Your task to perform on an android device: move a message to another label in the gmail app Image 0: 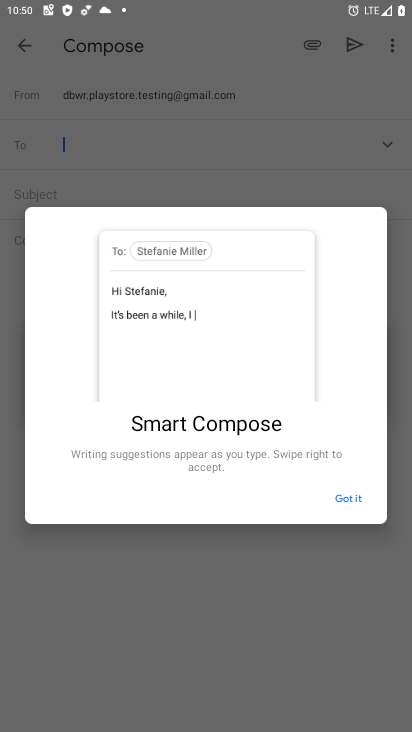
Step 0: press home button
Your task to perform on an android device: move a message to another label in the gmail app Image 1: 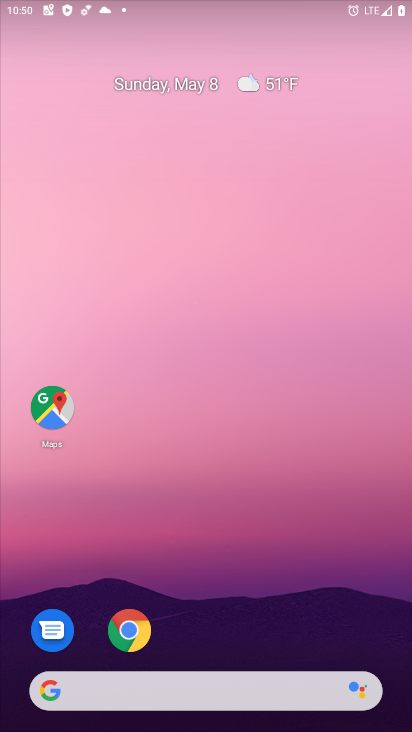
Step 1: drag from (364, 619) to (260, 54)
Your task to perform on an android device: move a message to another label in the gmail app Image 2: 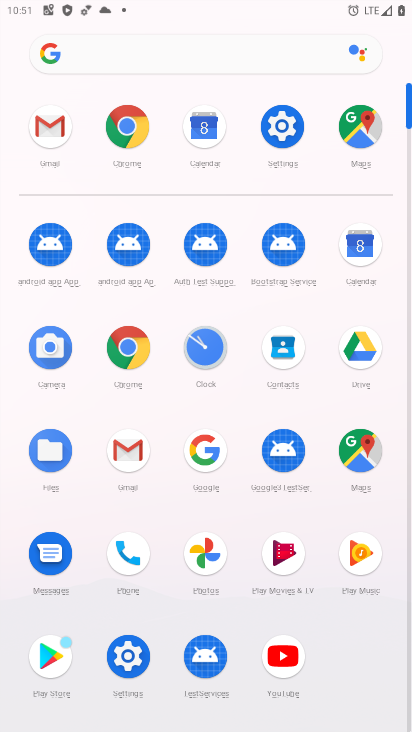
Step 2: click (147, 444)
Your task to perform on an android device: move a message to another label in the gmail app Image 3: 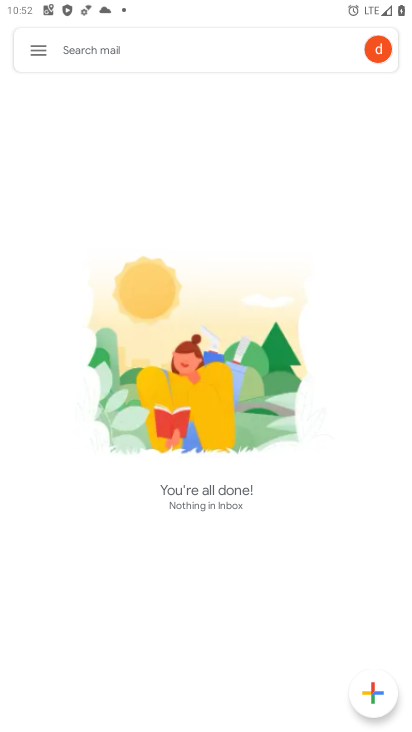
Step 3: task complete